Your task to perform on an android device: Open my contact list Image 0: 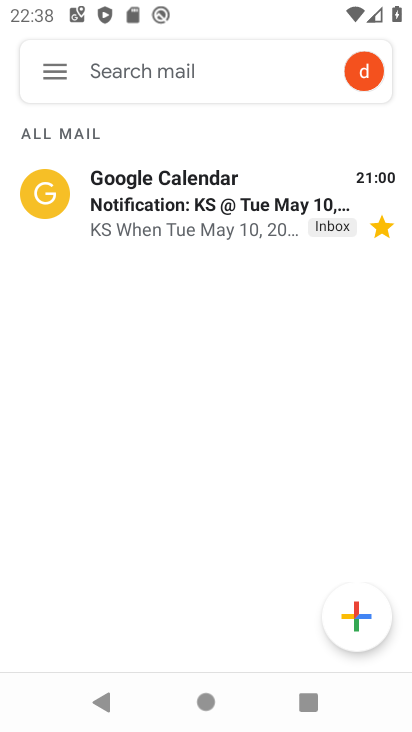
Step 0: press home button
Your task to perform on an android device: Open my contact list Image 1: 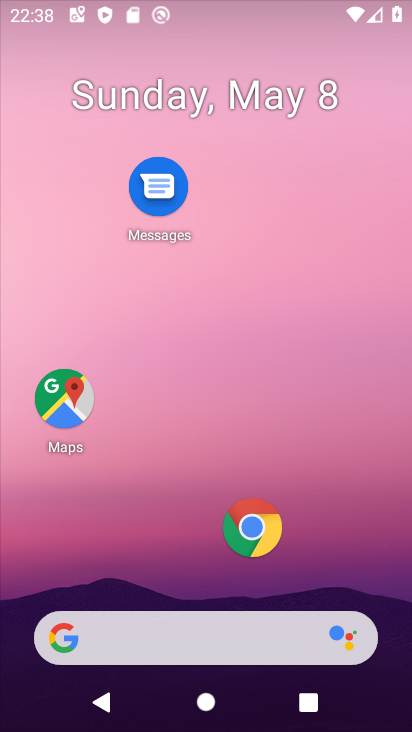
Step 1: drag from (168, 548) to (303, 10)
Your task to perform on an android device: Open my contact list Image 2: 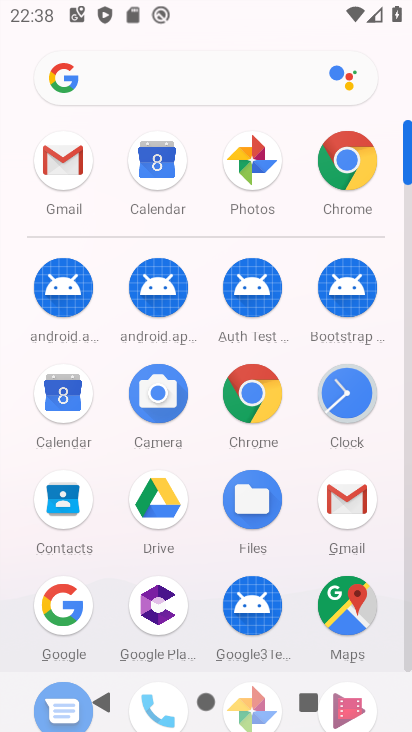
Step 2: click (60, 504)
Your task to perform on an android device: Open my contact list Image 3: 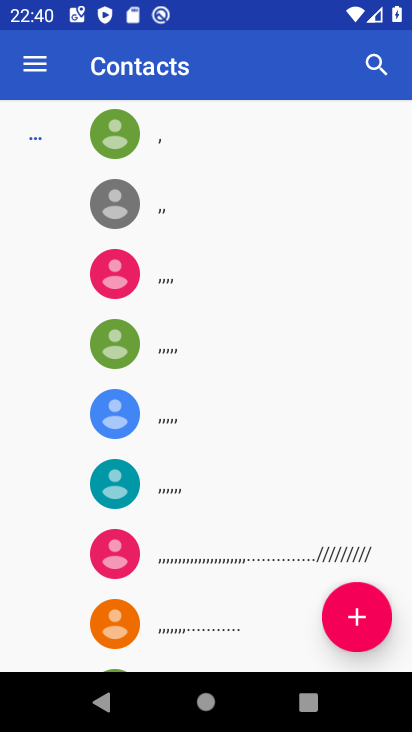
Step 3: task complete